Your task to perform on an android device: Go to Google Image 0: 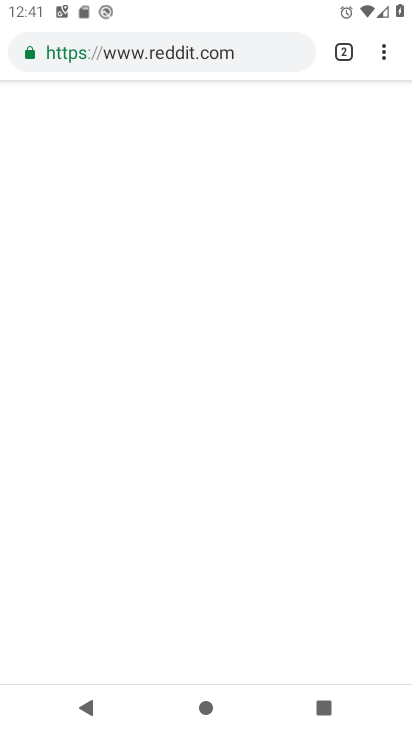
Step 0: press home button
Your task to perform on an android device: Go to Google Image 1: 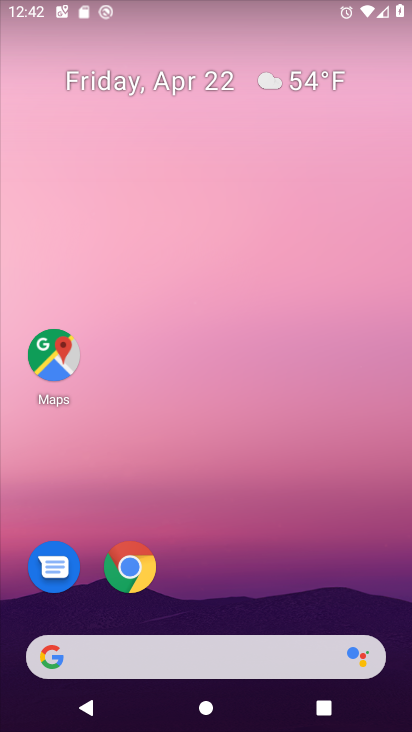
Step 1: drag from (244, 589) to (310, 128)
Your task to perform on an android device: Go to Google Image 2: 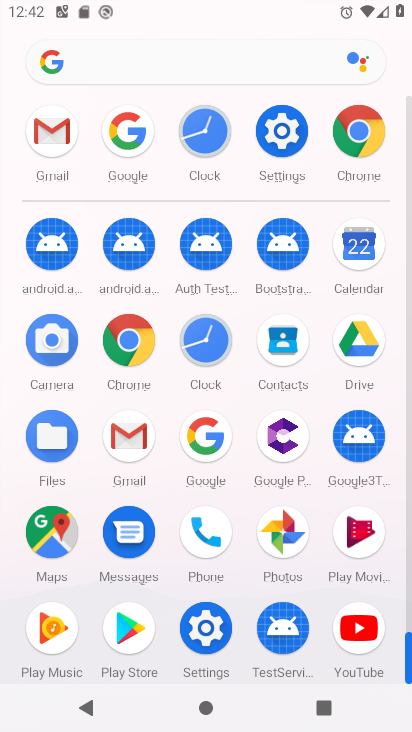
Step 2: click (212, 447)
Your task to perform on an android device: Go to Google Image 3: 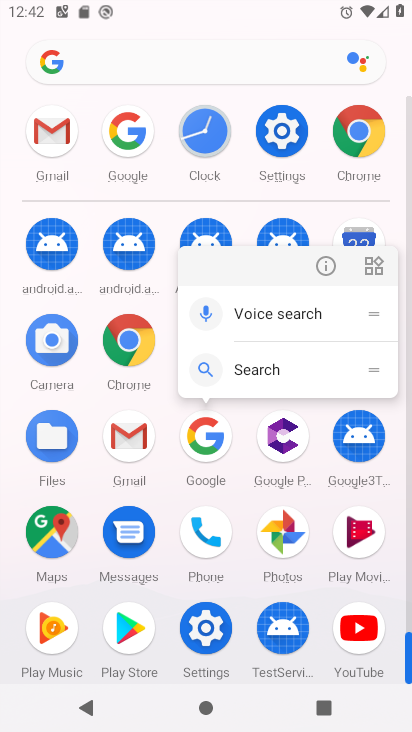
Step 3: click (212, 447)
Your task to perform on an android device: Go to Google Image 4: 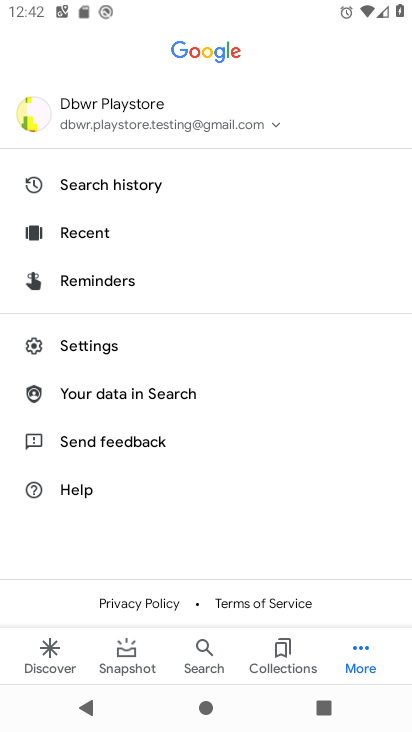
Step 4: task complete